Your task to perform on an android device: Go to sound settings Image 0: 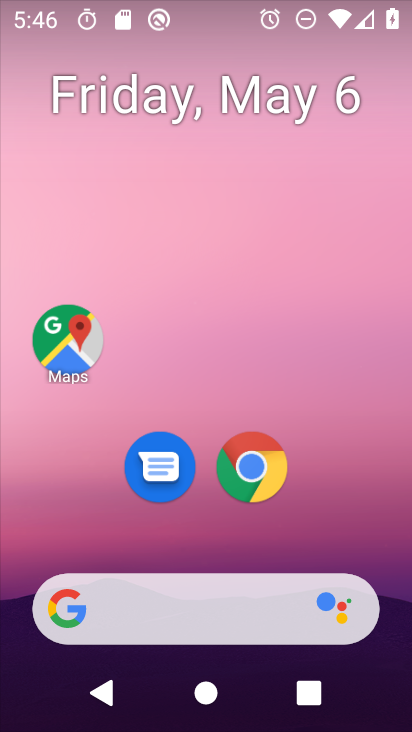
Step 0: drag from (356, 392) to (394, 182)
Your task to perform on an android device: Go to sound settings Image 1: 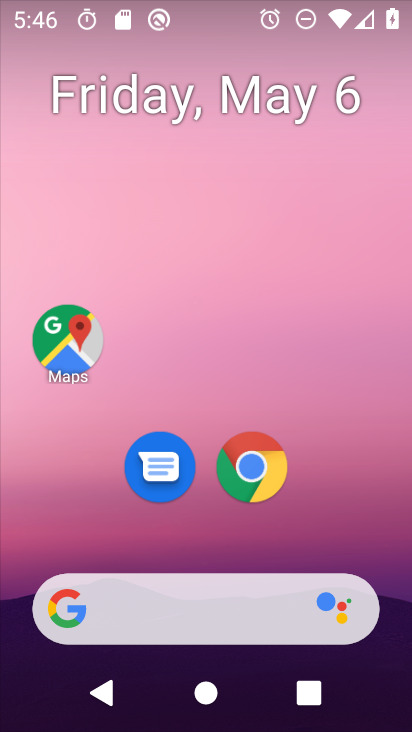
Step 1: drag from (310, 494) to (328, 93)
Your task to perform on an android device: Go to sound settings Image 2: 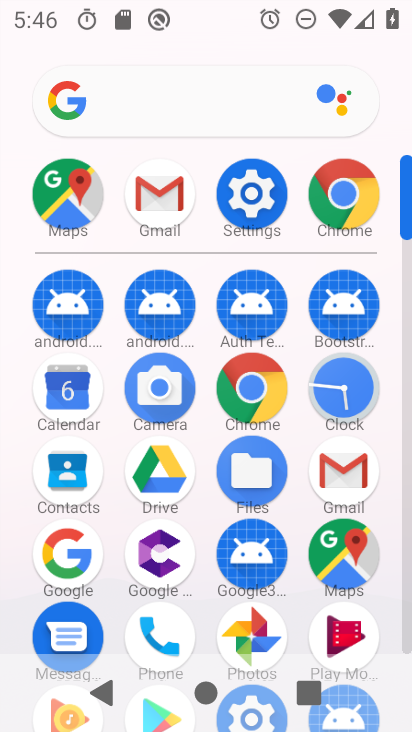
Step 2: click (266, 197)
Your task to perform on an android device: Go to sound settings Image 3: 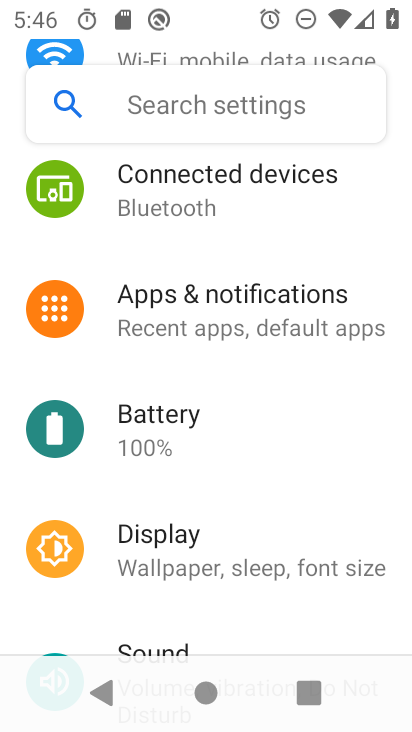
Step 3: click (162, 632)
Your task to perform on an android device: Go to sound settings Image 4: 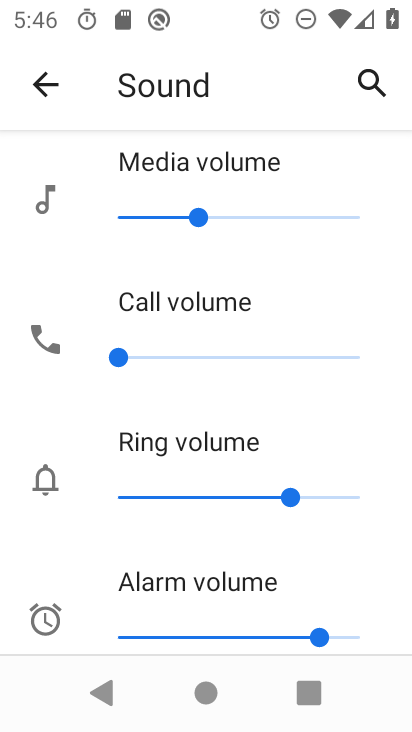
Step 4: task complete